Your task to perform on an android device: turn off improve location accuracy Image 0: 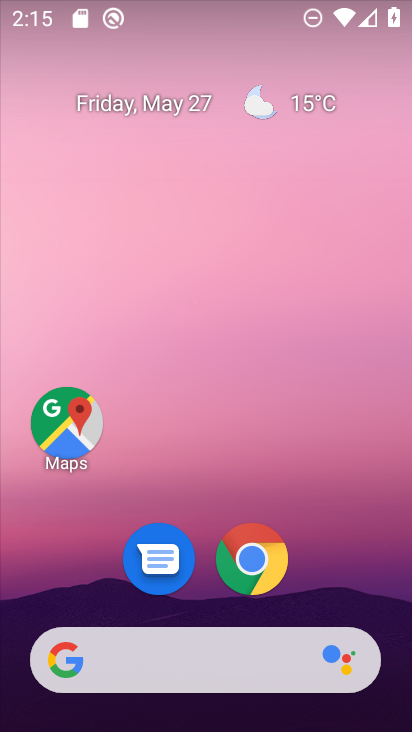
Step 0: drag from (278, 584) to (301, 105)
Your task to perform on an android device: turn off improve location accuracy Image 1: 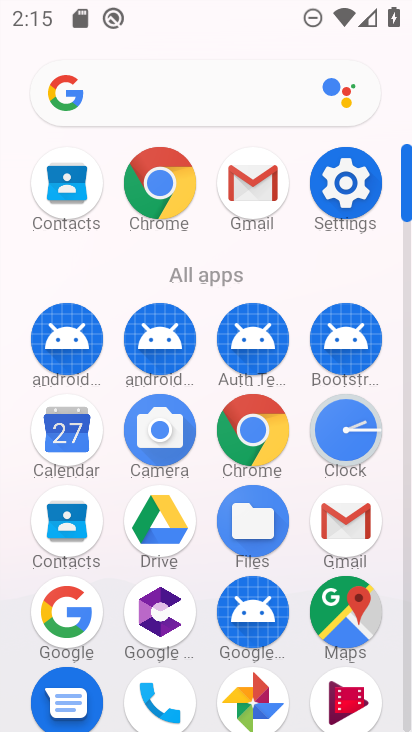
Step 1: click (332, 194)
Your task to perform on an android device: turn off improve location accuracy Image 2: 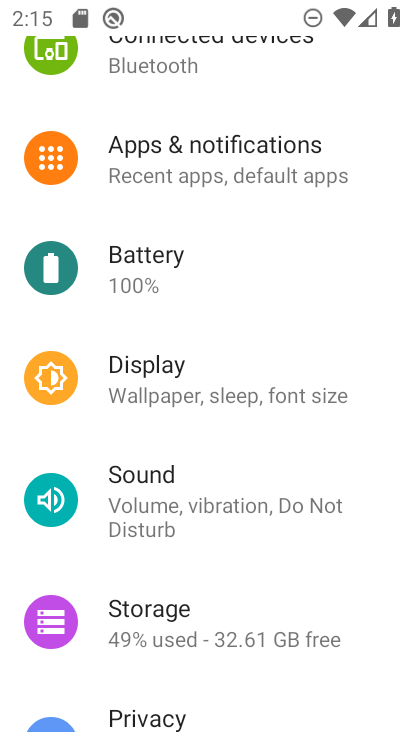
Step 2: drag from (215, 632) to (257, 135)
Your task to perform on an android device: turn off improve location accuracy Image 3: 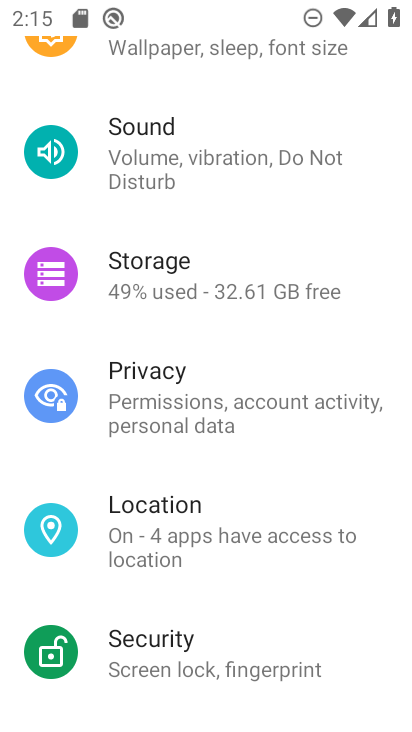
Step 3: click (199, 516)
Your task to perform on an android device: turn off improve location accuracy Image 4: 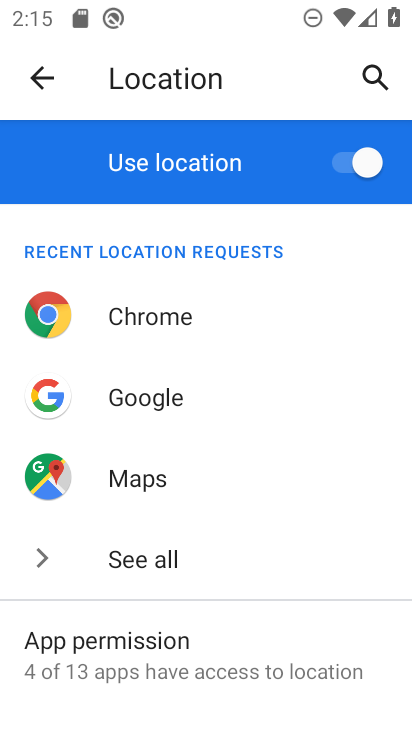
Step 4: drag from (231, 673) to (272, 74)
Your task to perform on an android device: turn off improve location accuracy Image 5: 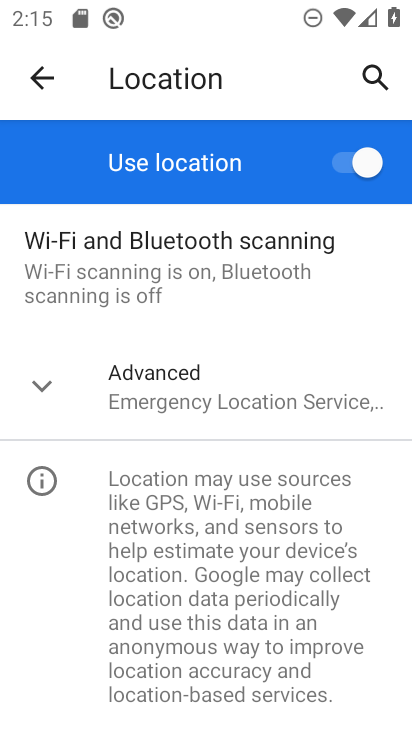
Step 5: click (212, 380)
Your task to perform on an android device: turn off improve location accuracy Image 6: 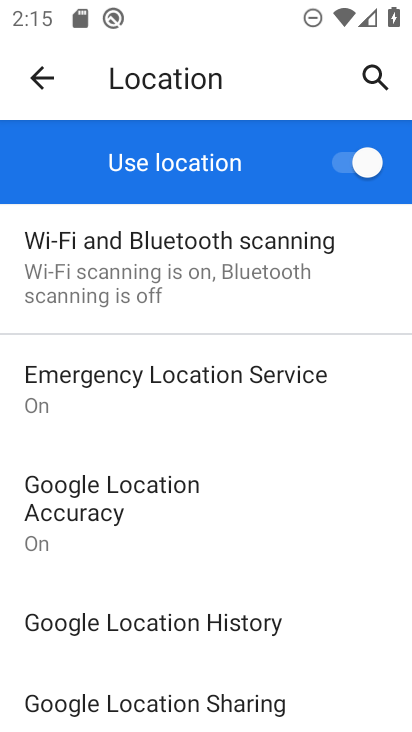
Step 6: click (185, 514)
Your task to perform on an android device: turn off improve location accuracy Image 7: 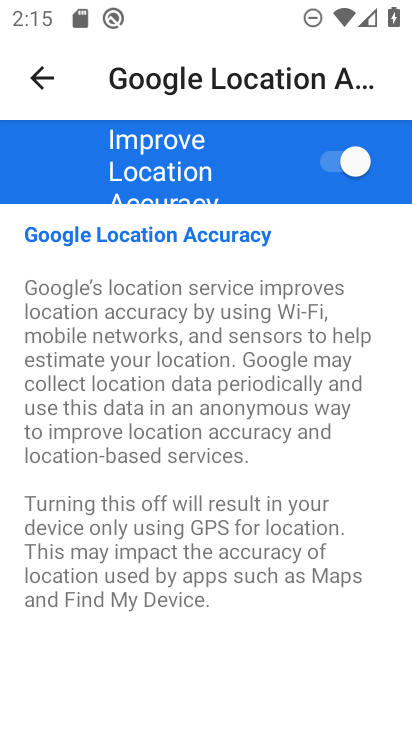
Step 7: click (335, 161)
Your task to perform on an android device: turn off improve location accuracy Image 8: 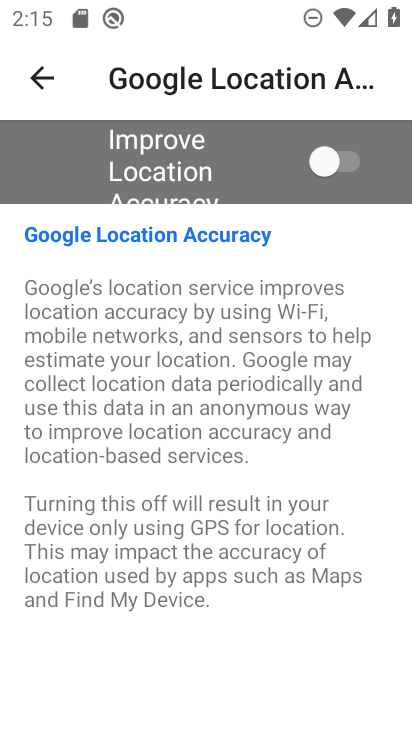
Step 8: task complete